Your task to perform on an android device: Open Google Chrome Image 0: 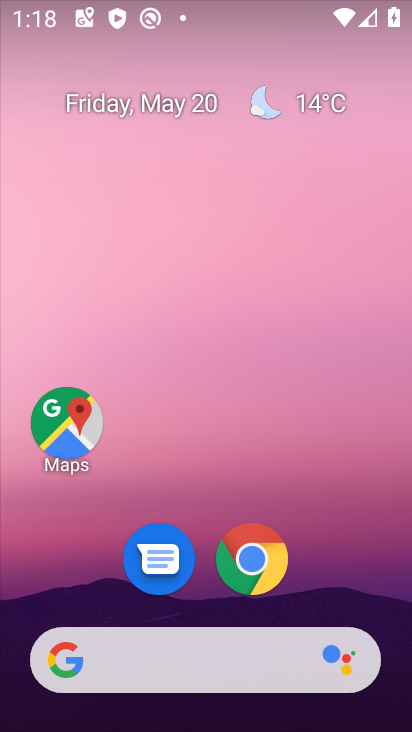
Step 0: click (254, 564)
Your task to perform on an android device: Open Google Chrome Image 1: 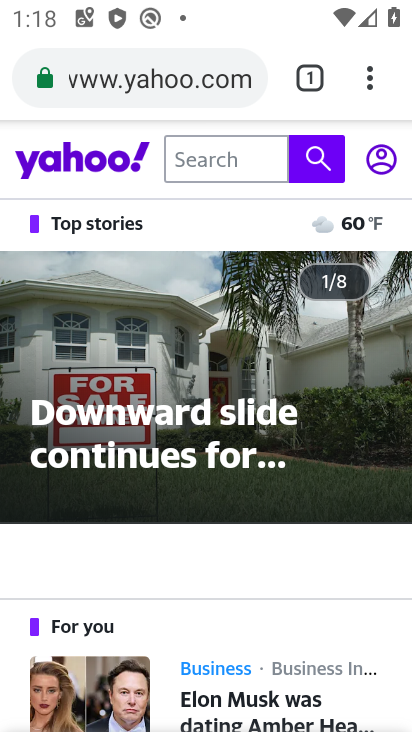
Step 1: task complete